Your task to perform on an android device: What is the recent news? Image 0: 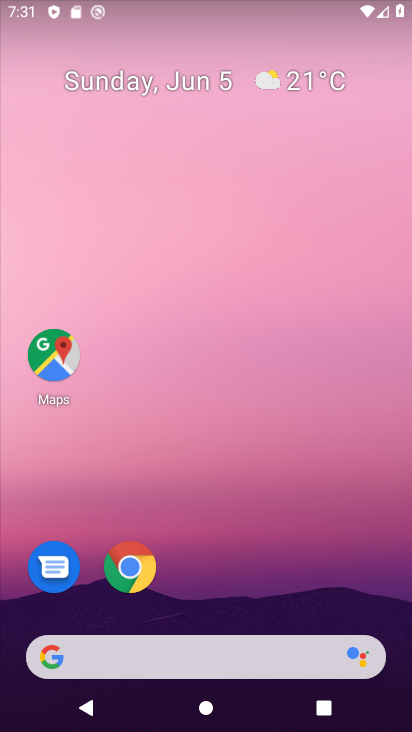
Step 0: drag from (161, 599) to (174, 100)
Your task to perform on an android device: What is the recent news? Image 1: 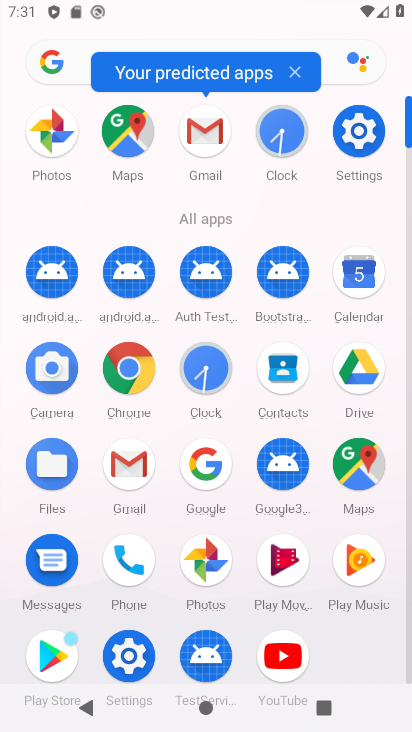
Step 1: click (227, 466)
Your task to perform on an android device: What is the recent news? Image 2: 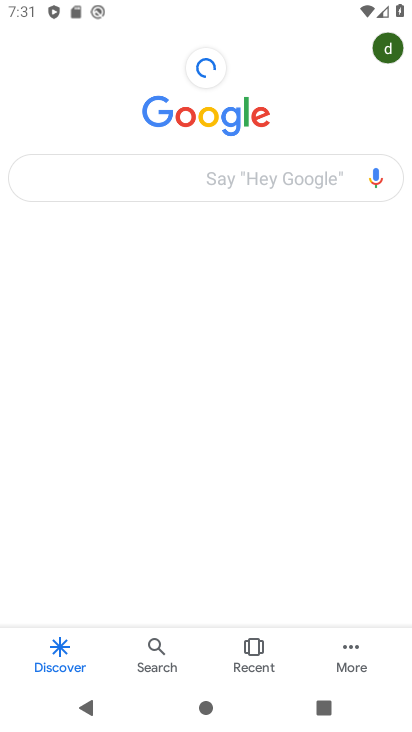
Step 2: click (145, 170)
Your task to perform on an android device: What is the recent news? Image 3: 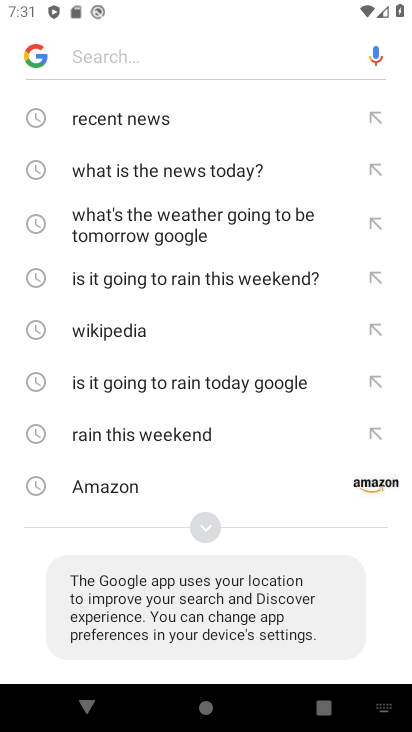
Step 3: click (126, 117)
Your task to perform on an android device: What is the recent news? Image 4: 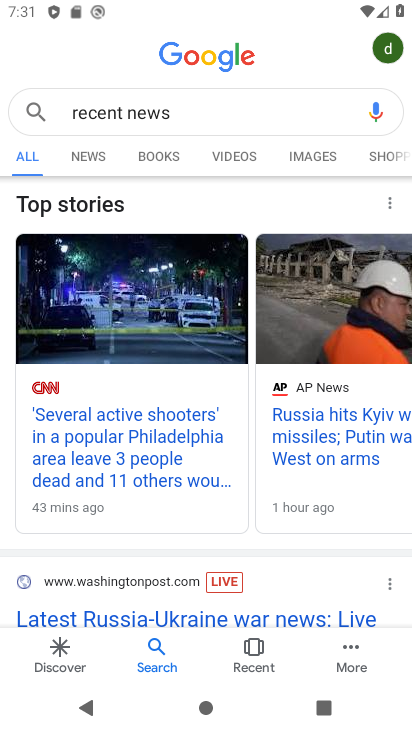
Step 4: task complete